Your task to perform on an android device: Check the news Image 0: 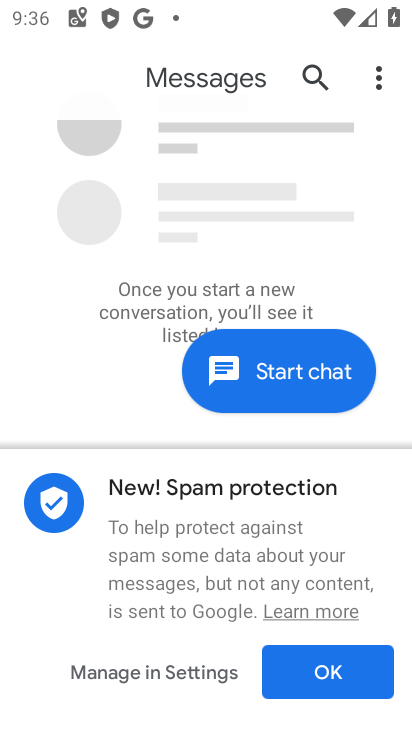
Step 0: press home button
Your task to perform on an android device: Check the news Image 1: 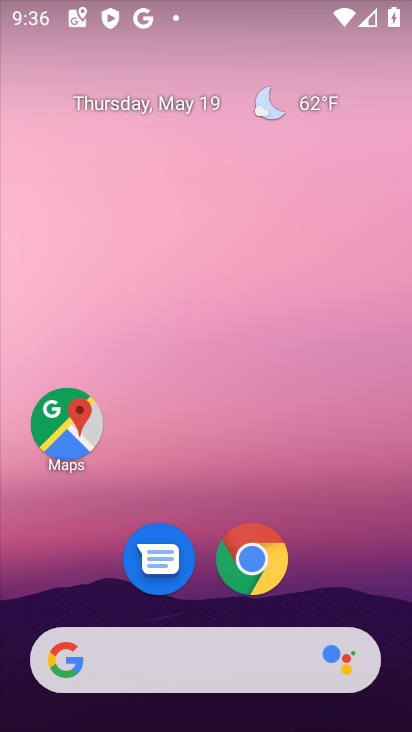
Step 1: click (254, 563)
Your task to perform on an android device: Check the news Image 2: 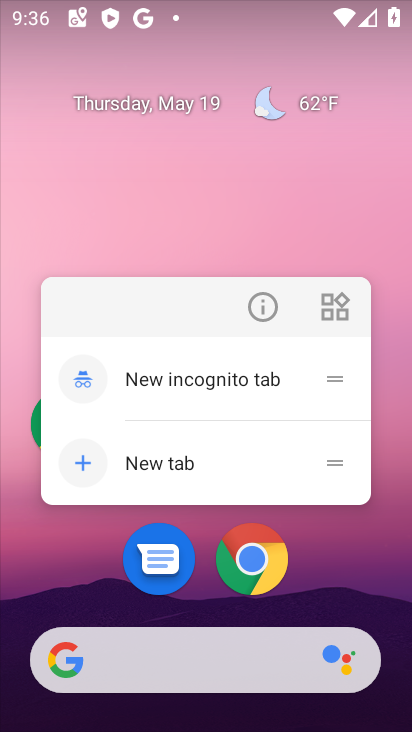
Step 2: click (254, 554)
Your task to perform on an android device: Check the news Image 3: 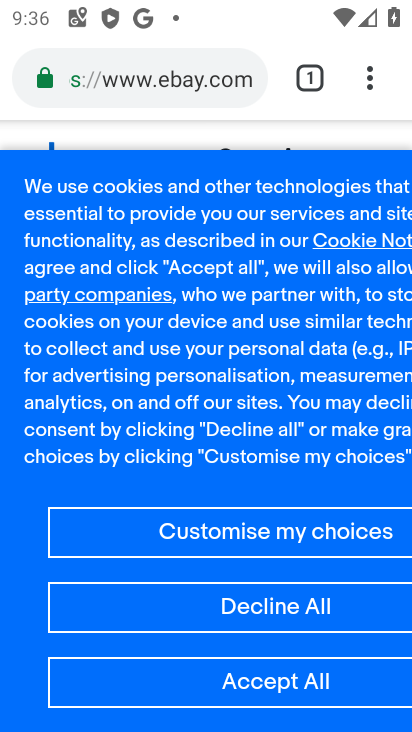
Step 3: click (210, 74)
Your task to perform on an android device: Check the news Image 4: 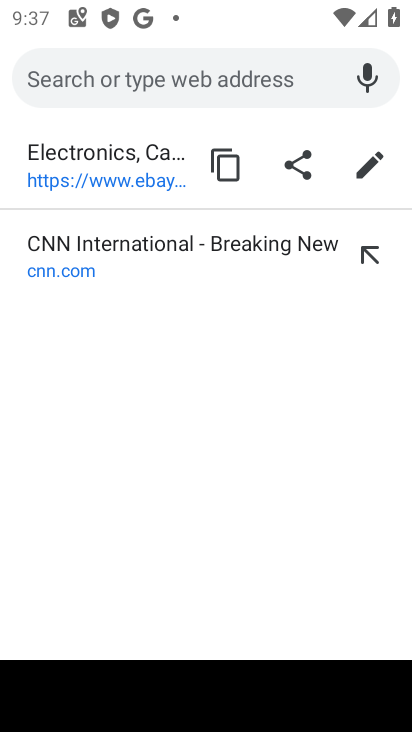
Step 4: type " news"
Your task to perform on an android device: Check the news Image 5: 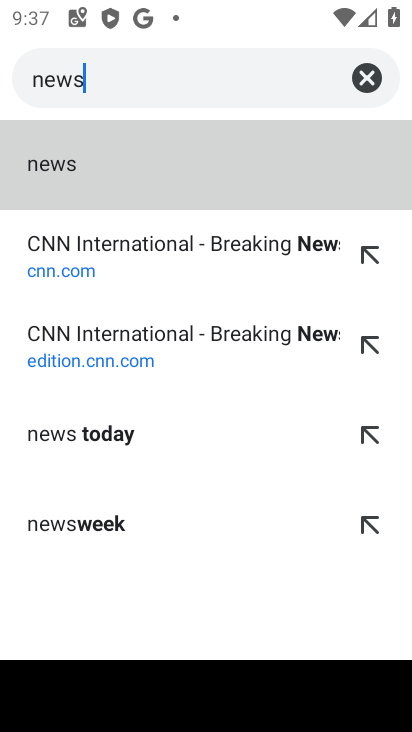
Step 5: click (56, 144)
Your task to perform on an android device: Check the news Image 6: 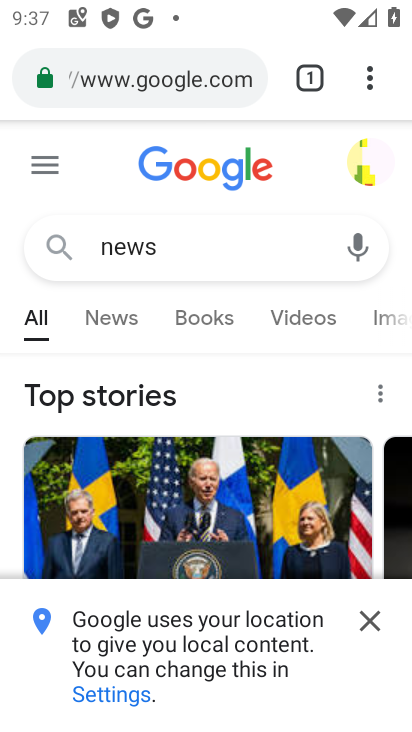
Step 6: click (129, 313)
Your task to perform on an android device: Check the news Image 7: 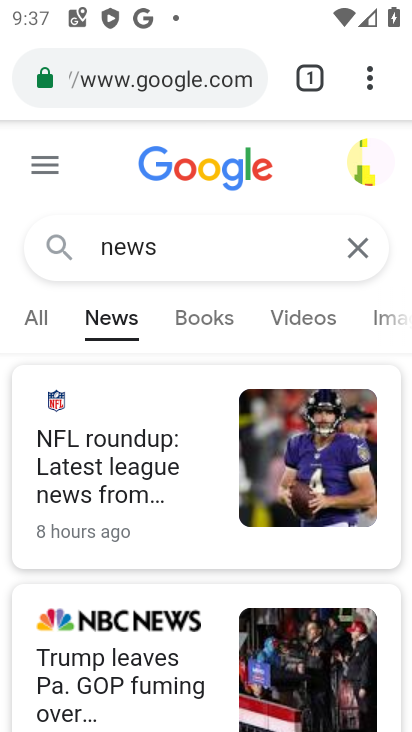
Step 7: task complete